Your task to perform on an android device: change notification settings in the gmail app Image 0: 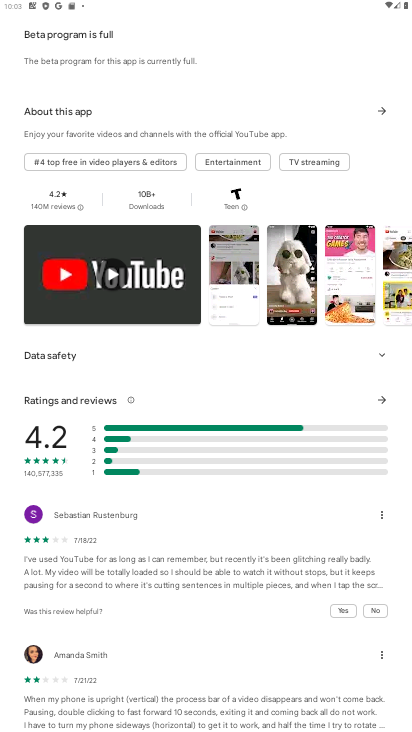
Step 0: press home button
Your task to perform on an android device: change notification settings in the gmail app Image 1: 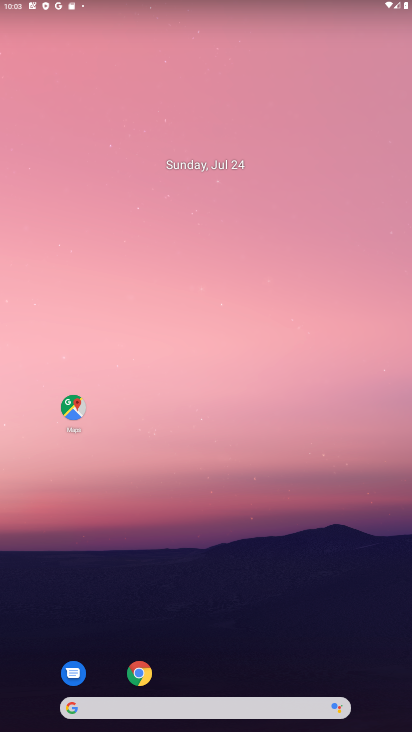
Step 1: drag from (181, 2) to (264, 175)
Your task to perform on an android device: change notification settings in the gmail app Image 2: 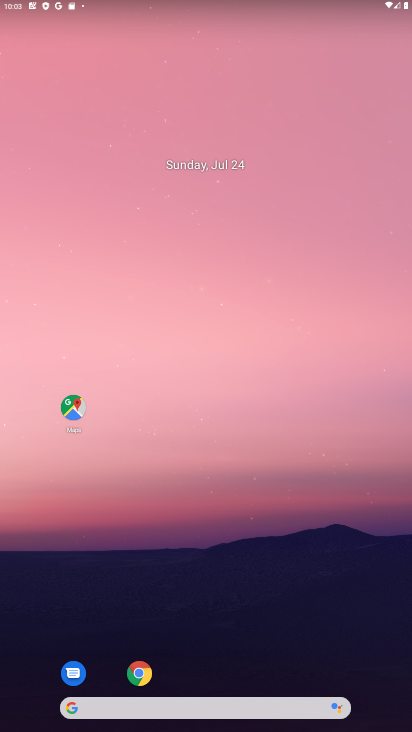
Step 2: drag from (12, 695) to (174, 251)
Your task to perform on an android device: change notification settings in the gmail app Image 3: 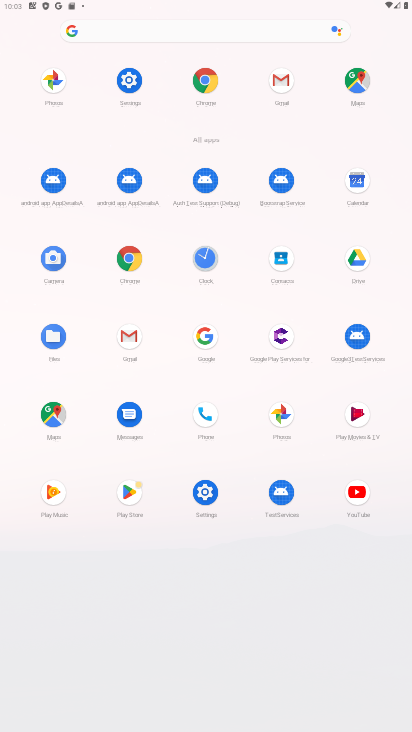
Step 3: click (127, 332)
Your task to perform on an android device: change notification settings in the gmail app Image 4: 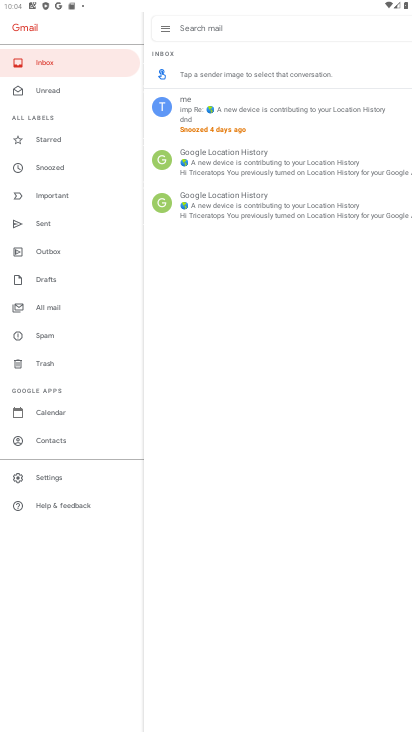
Step 4: click (54, 483)
Your task to perform on an android device: change notification settings in the gmail app Image 5: 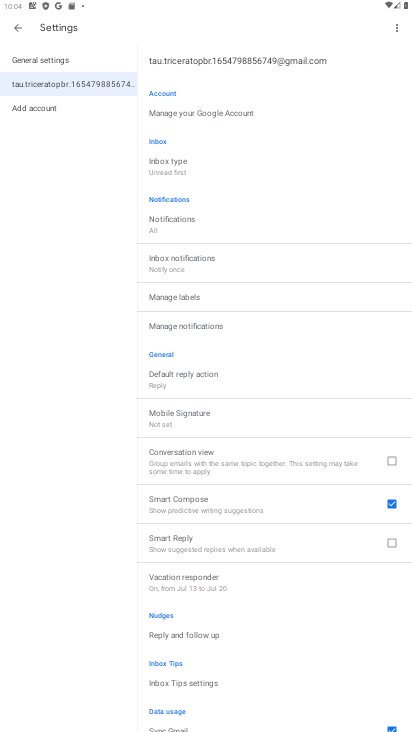
Step 5: click (45, 93)
Your task to perform on an android device: change notification settings in the gmail app Image 6: 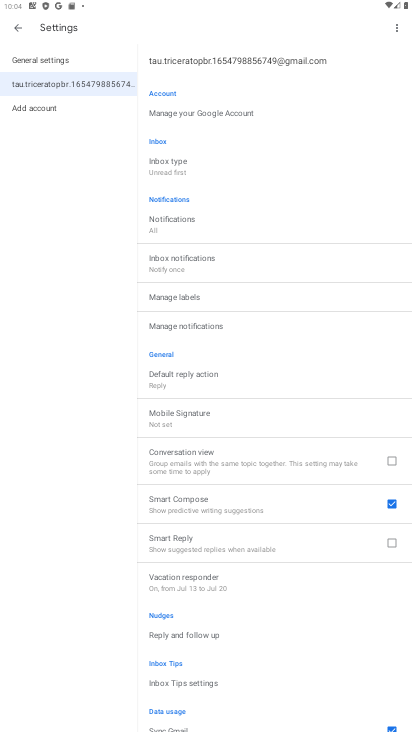
Step 6: click (36, 104)
Your task to perform on an android device: change notification settings in the gmail app Image 7: 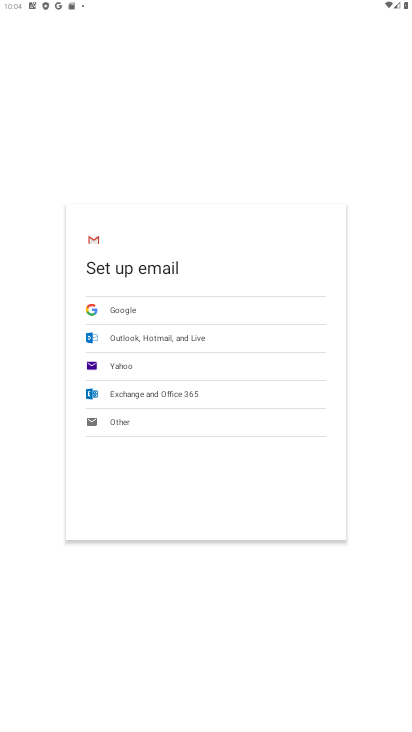
Step 7: task complete